Your task to perform on an android device: turn pop-ups on in chrome Image 0: 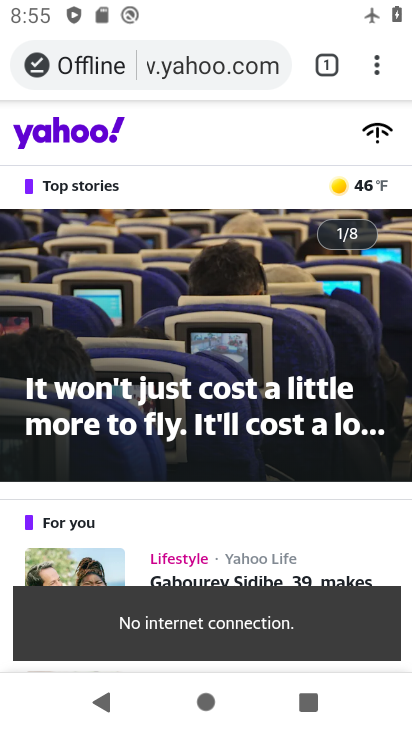
Step 0: drag from (380, 64) to (211, 575)
Your task to perform on an android device: turn pop-ups on in chrome Image 1: 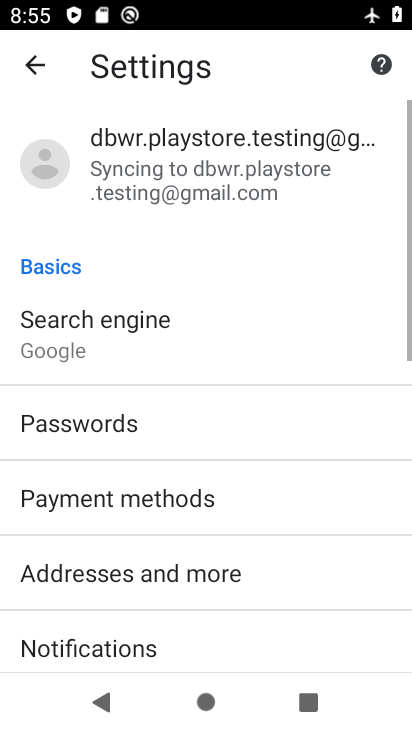
Step 1: drag from (212, 568) to (350, 42)
Your task to perform on an android device: turn pop-ups on in chrome Image 2: 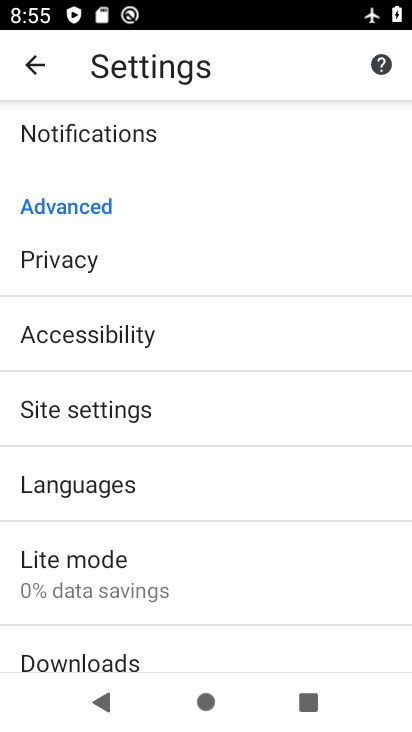
Step 2: click (122, 404)
Your task to perform on an android device: turn pop-ups on in chrome Image 3: 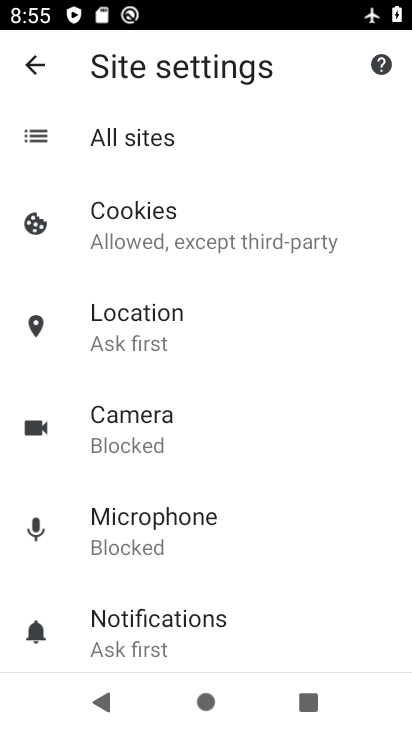
Step 3: drag from (262, 590) to (305, 221)
Your task to perform on an android device: turn pop-ups on in chrome Image 4: 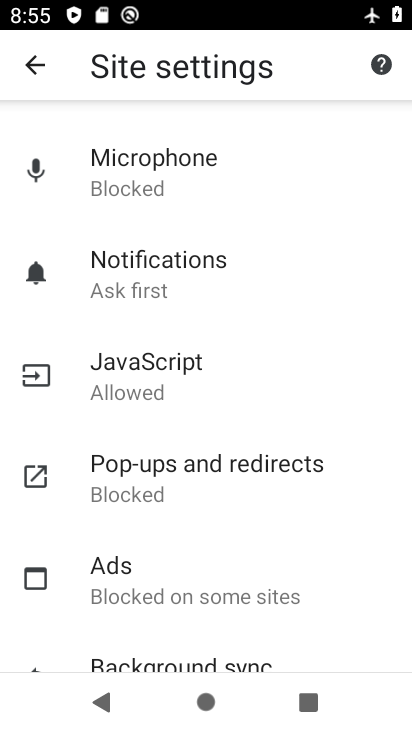
Step 4: click (213, 465)
Your task to perform on an android device: turn pop-ups on in chrome Image 5: 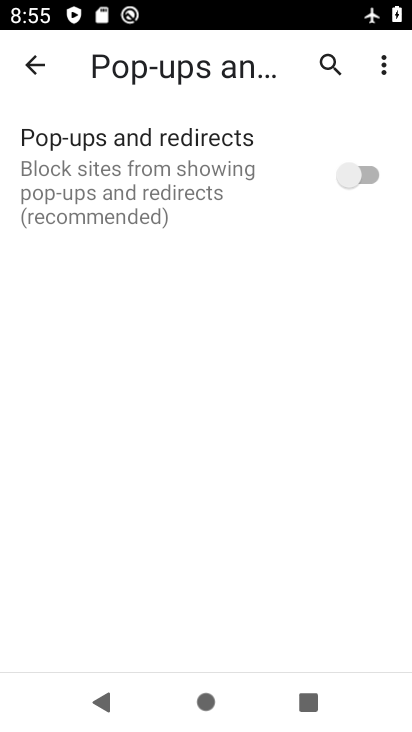
Step 5: click (370, 161)
Your task to perform on an android device: turn pop-ups on in chrome Image 6: 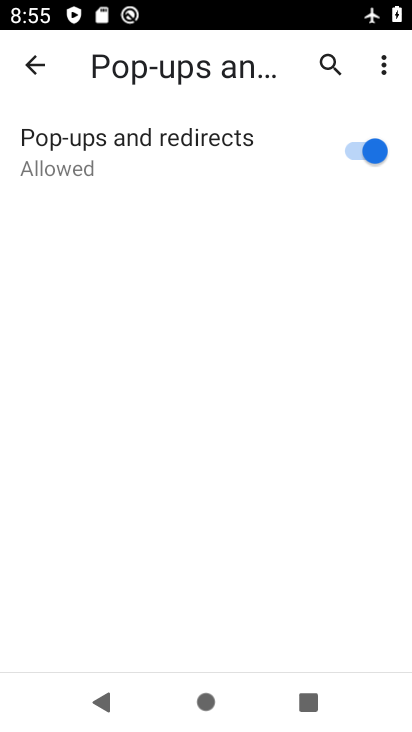
Step 6: task complete